Your task to perform on an android device: Go to settings Image 0: 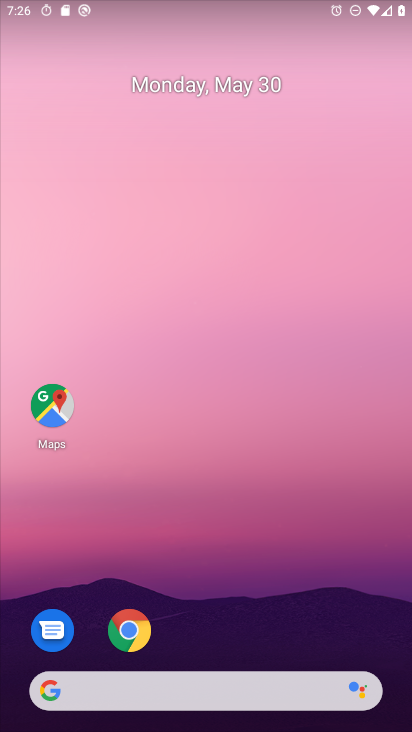
Step 0: drag from (360, 628) to (315, 63)
Your task to perform on an android device: Go to settings Image 1: 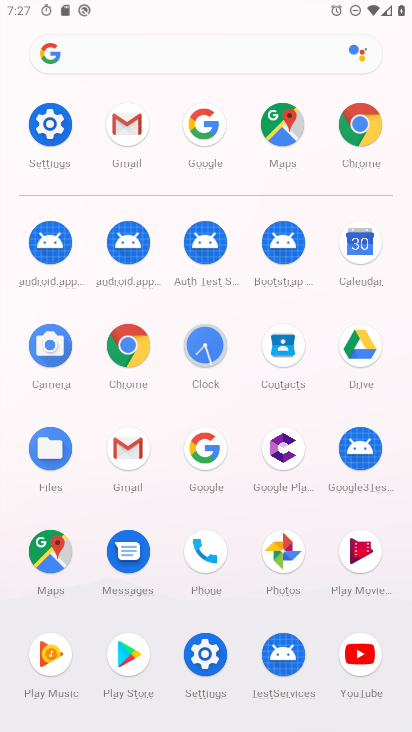
Step 1: click (187, 659)
Your task to perform on an android device: Go to settings Image 2: 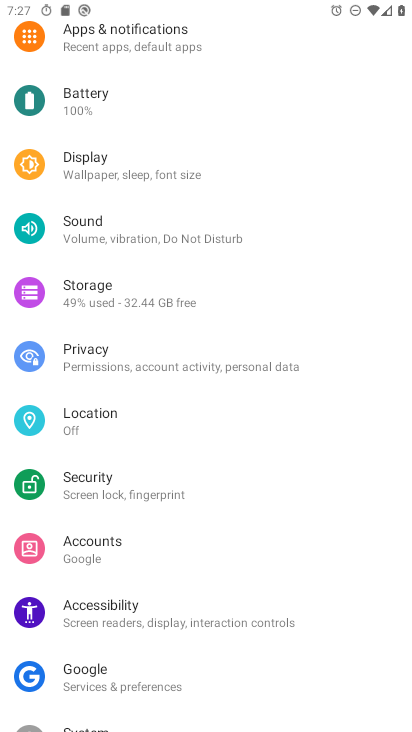
Step 2: task complete